Your task to perform on an android device: turn on improve location accuracy Image 0: 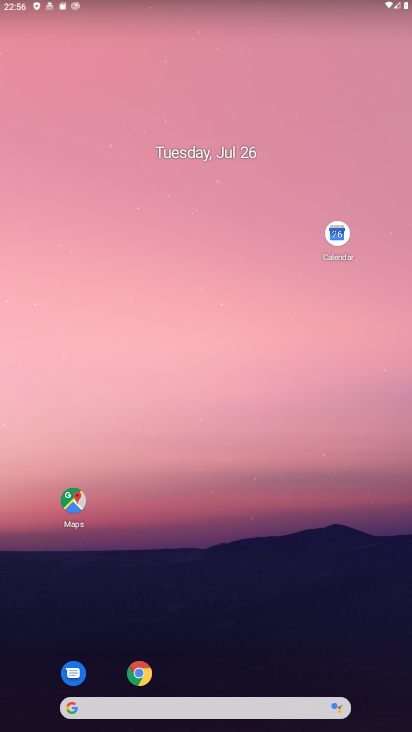
Step 0: drag from (191, 453) to (86, 93)
Your task to perform on an android device: turn on improve location accuracy Image 1: 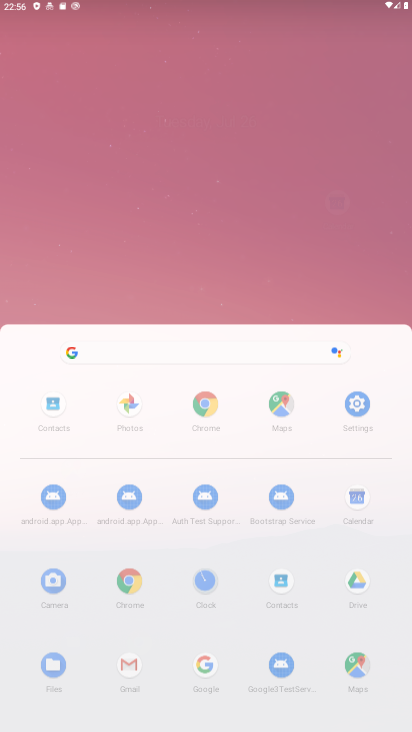
Step 1: drag from (197, 426) to (149, 86)
Your task to perform on an android device: turn on improve location accuracy Image 2: 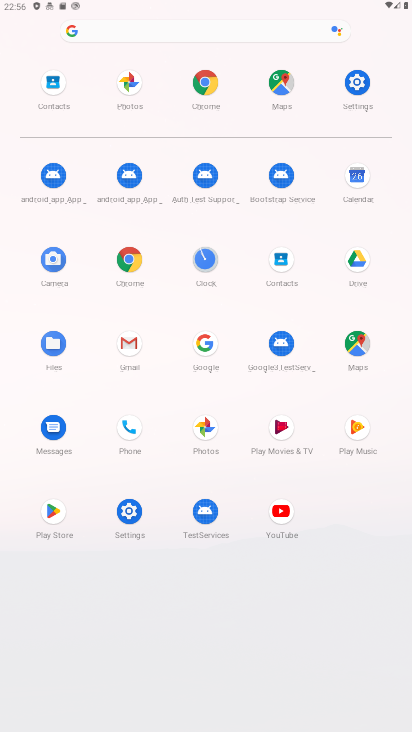
Step 2: click (357, 80)
Your task to perform on an android device: turn on improve location accuracy Image 3: 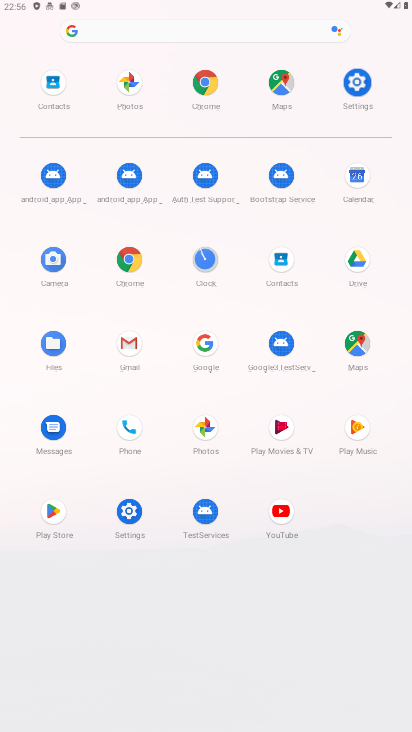
Step 3: click (358, 78)
Your task to perform on an android device: turn on improve location accuracy Image 4: 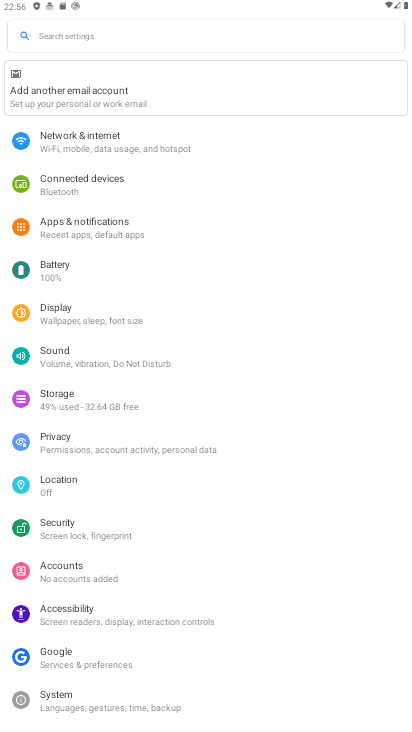
Step 4: click (56, 487)
Your task to perform on an android device: turn on improve location accuracy Image 5: 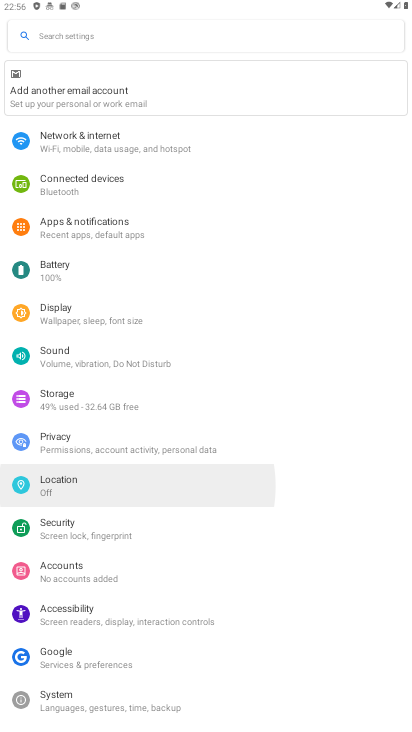
Step 5: click (57, 484)
Your task to perform on an android device: turn on improve location accuracy Image 6: 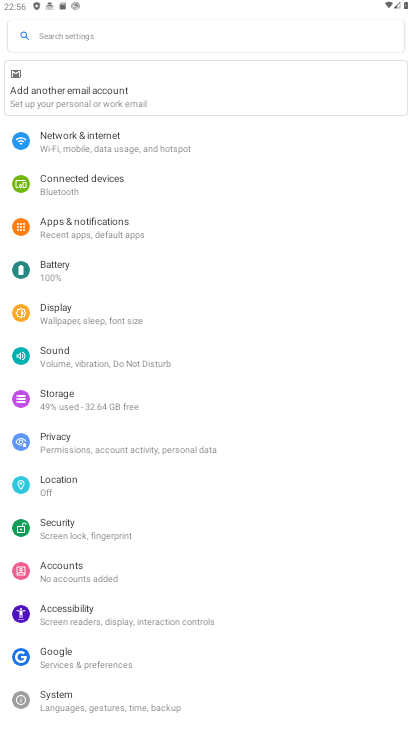
Step 6: click (62, 478)
Your task to perform on an android device: turn on improve location accuracy Image 7: 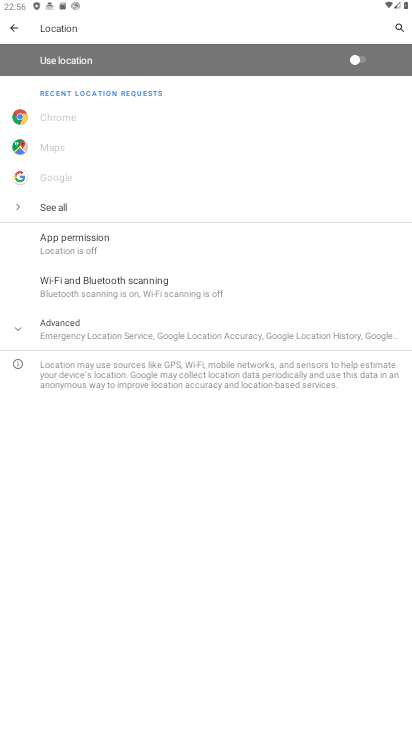
Step 7: click (71, 327)
Your task to perform on an android device: turn on improve location accuracy Image 8: 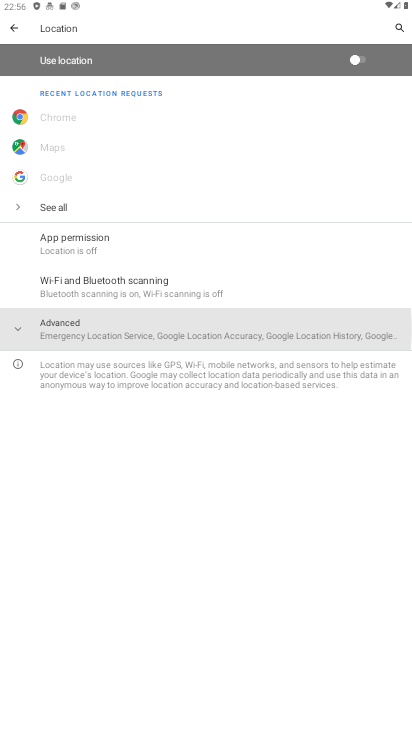
Step 8: click (71, 327)
Your task to perform on an android device: turn on improve location accuracy Image 9: 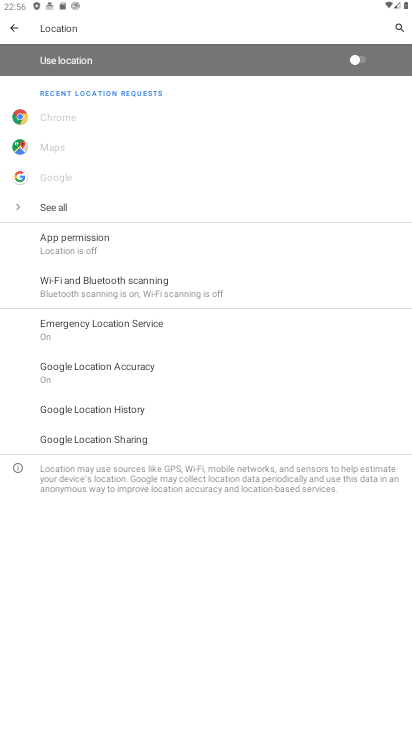
Step 9: click (127, 364)
Your task to perform on an android device: turn on improve location accuracy Image 10: 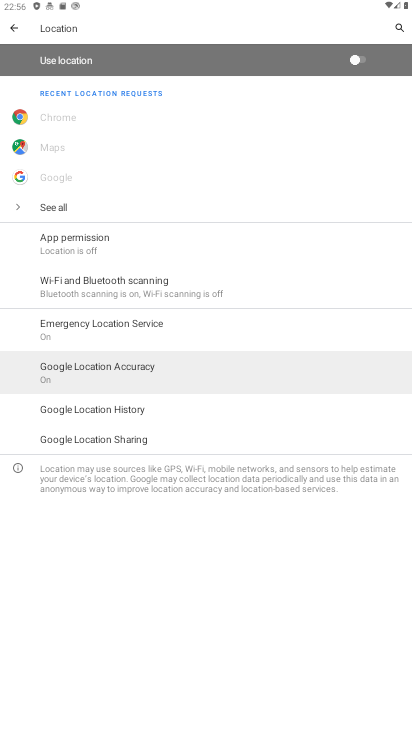
Step 10: click (127, 364)
Your task to perform on an android device: turn on improve location accuracy Image 11: 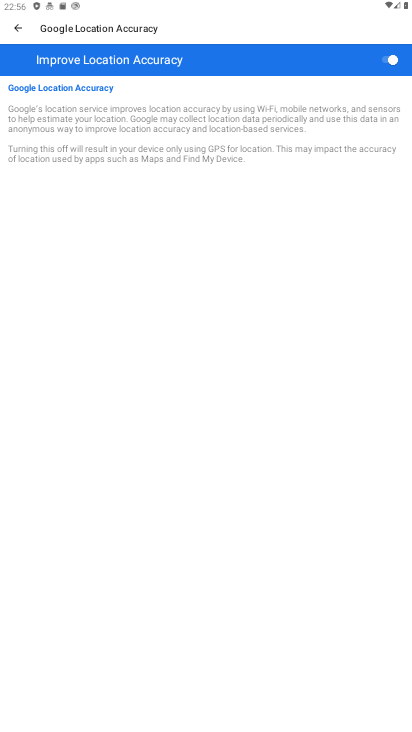
Step 11: task complete